Your task to perform on an android device: turn on location history Image 0: 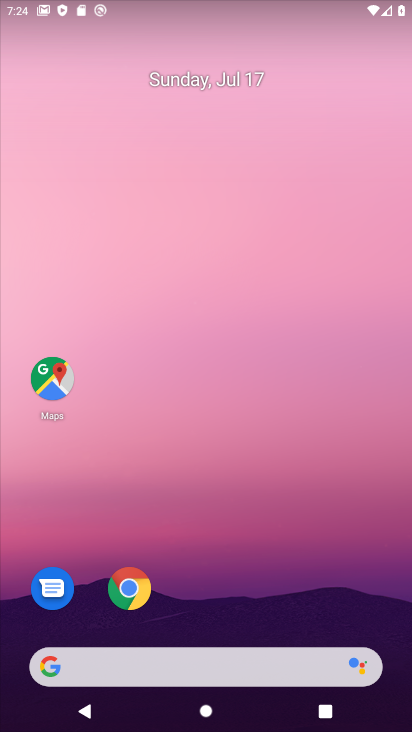
Step 0: press home button
Your task to perform on an android device: turn on location history Image 1: 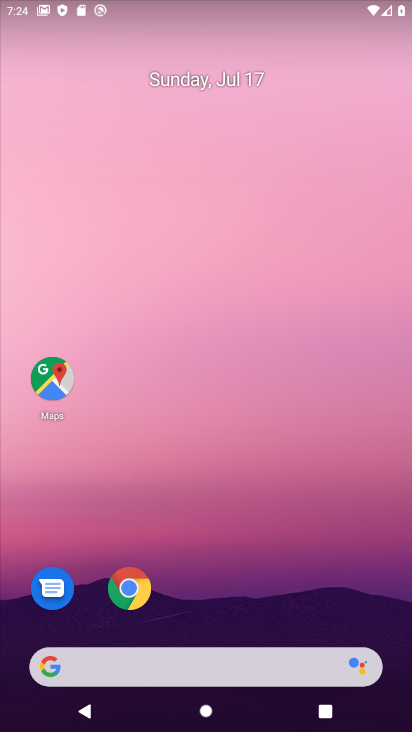
Step 1: drag from (233, 438) to (231, 77)
Your task to perform on an android device: turn on location history Image 2: 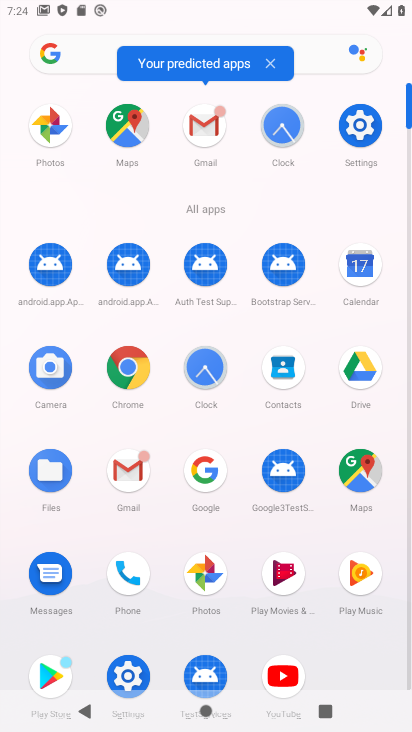
Step 2: click (365, 125)
Your task to perform on an android device: turn on location history Image 3: 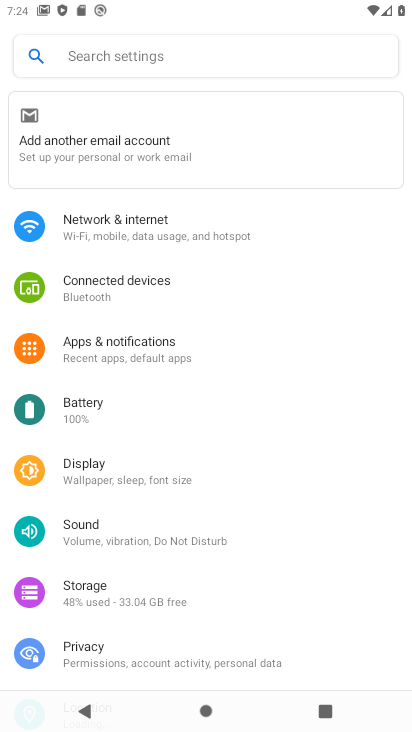
Step 3: drag from (217, 630) to (159, 303)
Your task to perform on an android device: turn on location history Image 4: 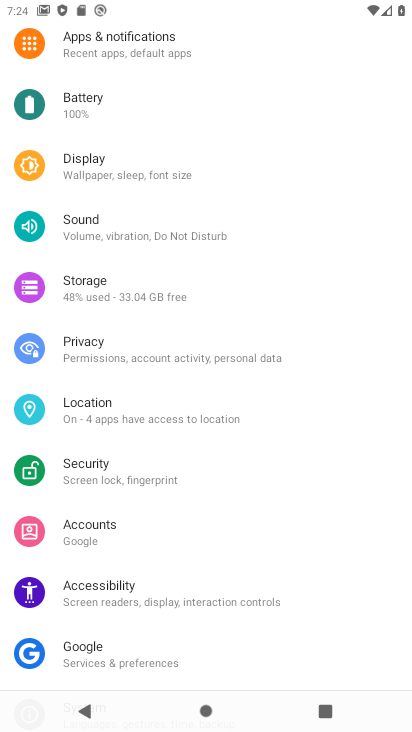
Step 4: drag from (141, 648) to (135, 345)
Your task to perform on an android device: turn on location history Image 5: 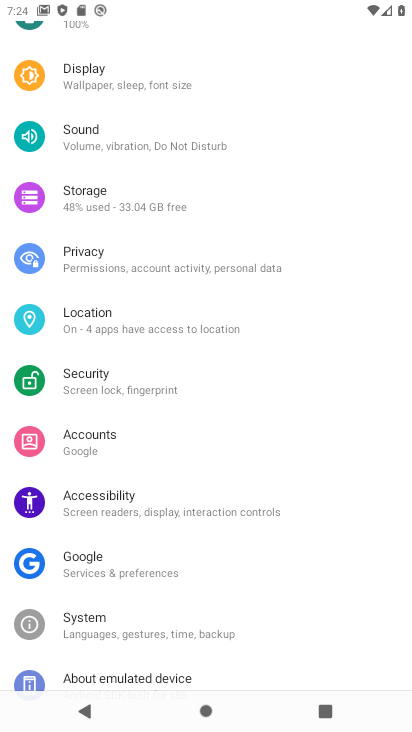
Step 5: click (122, 317)
Your task to perform on an android device: turn on location history Image 6: 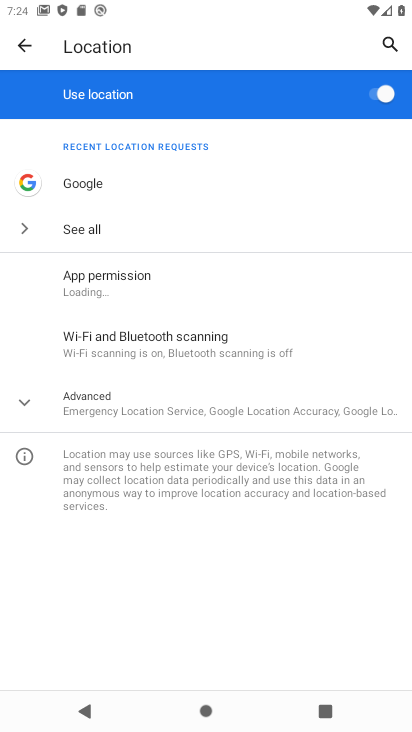
Step 6: click (29, 402)
Your task to perform on an android device: turn on location history Image 7: 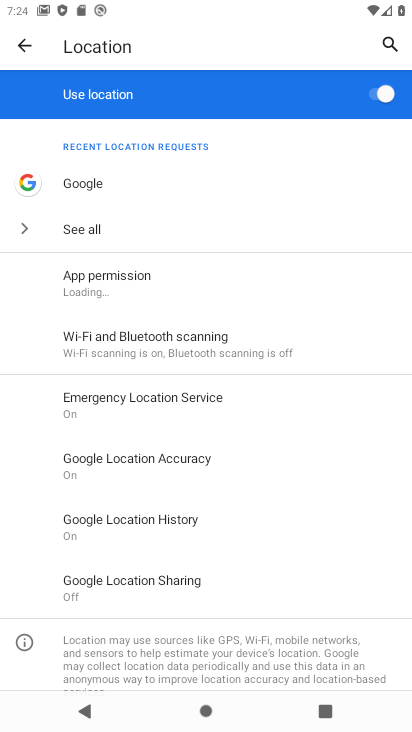
Step 7: click (119, 521)
Your task to perform on an android device: turn on location history Image 8: 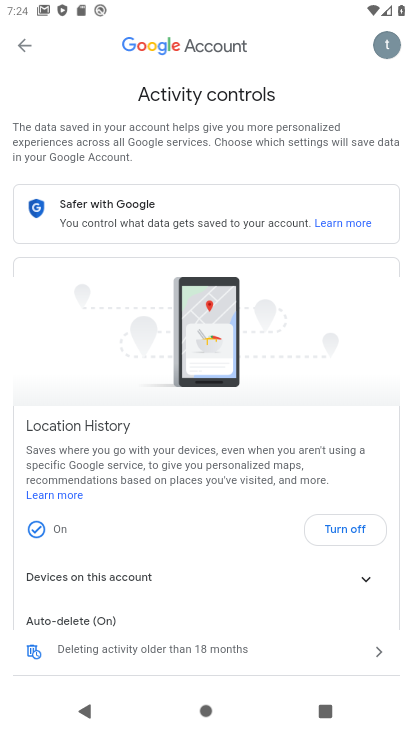
Step 8: task complete